Your task to perform on an android device: set the timer Image 0: 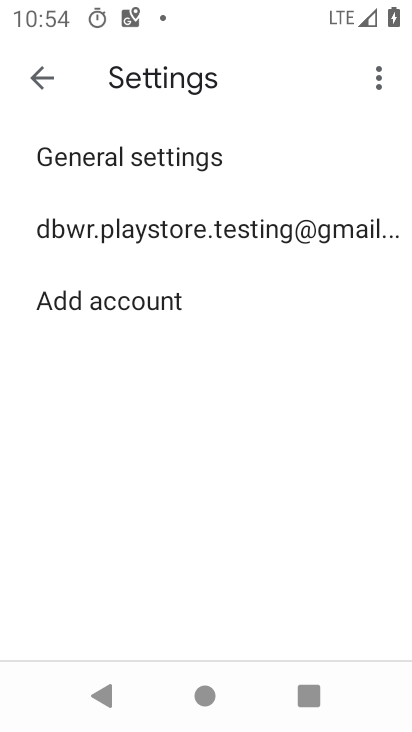
Step 0: press home button
Your task to perform on an android device: set the timer Image 1: 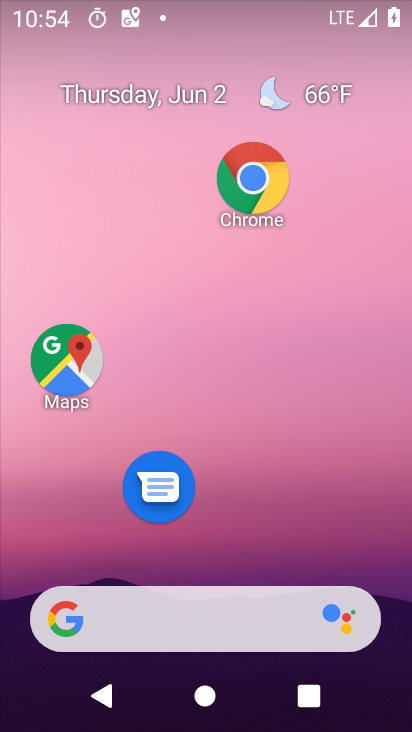
Step 1: drag from (231, 702) to (194, 43)
Your task to perform on an android device: set the timer Image 2: 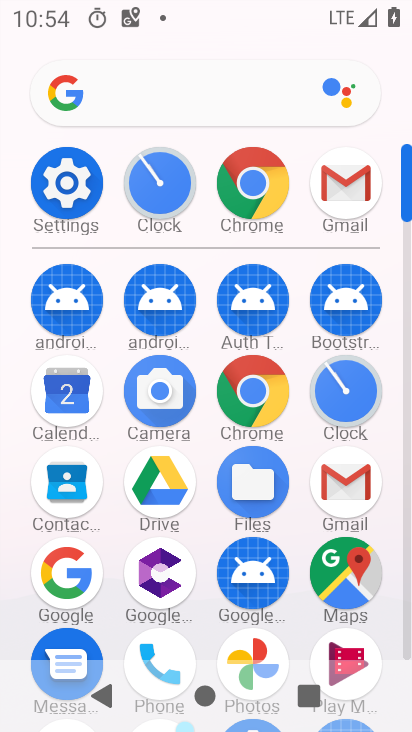
Step 2: click (336, 397)
Your task to perform on an android device: set the timer Image 3: 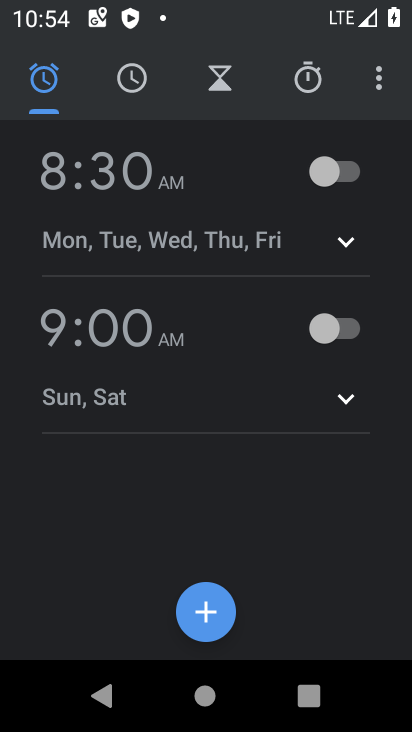
Step 3: click (216, 78)
Your task to perform on an android device: set the timer Image 4: 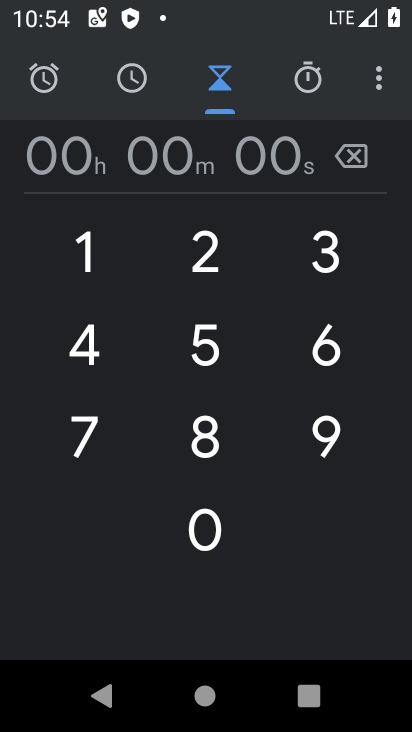
Step 4: click (206, 253)
Your task to perform on an android device: set the timer Image 5: 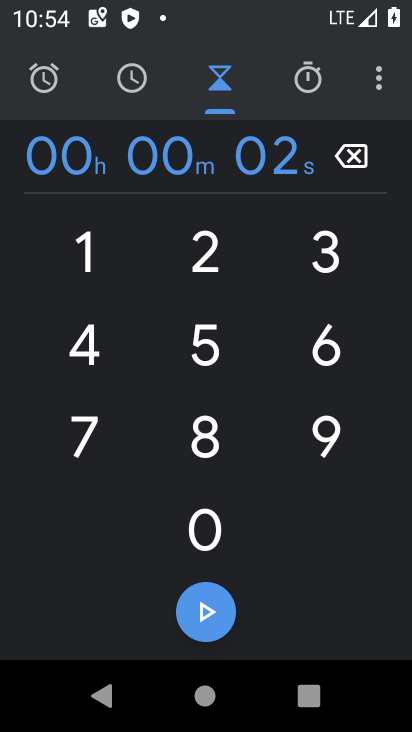
Step 5: click (90, 253)
Your task to perform on an android device: set the timer Image 6: 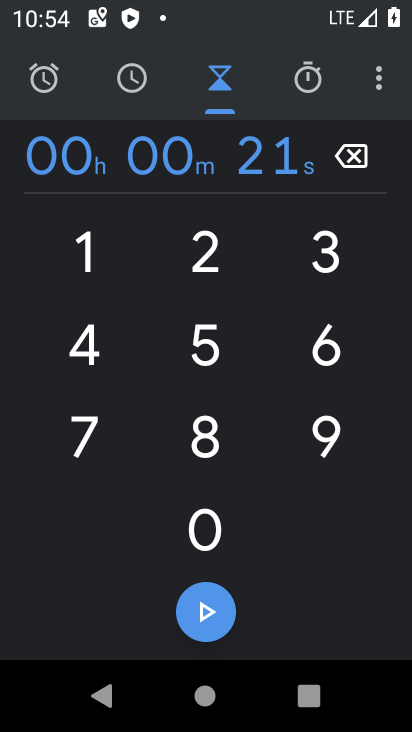
Step 6: click (207, 435)
Your task to perform on an android device: set the timer Image 7: 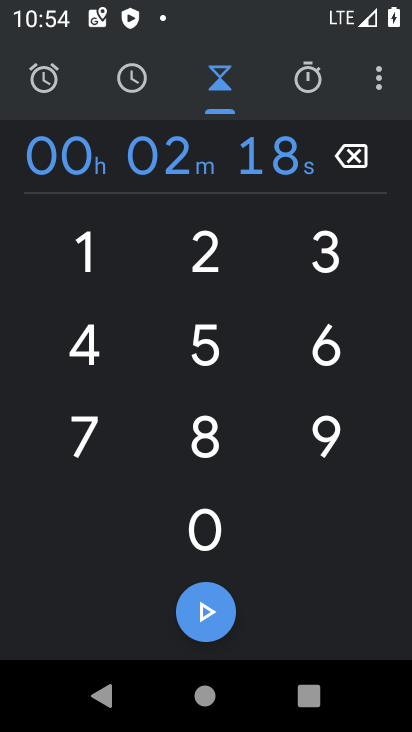
Step 7: click (206, 516)
Your task to perform on an android device: set the timer Image 8: 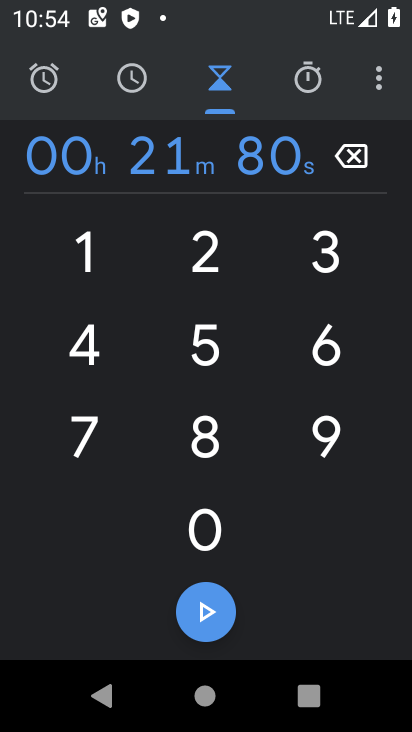
Step 8: click (207, 620)
Your task to perform on an android device: set the timer Image 9: 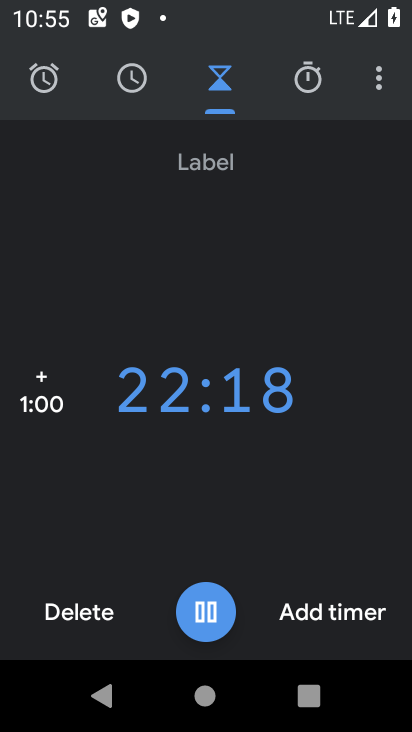
Step 9: task complete